Your task to perform on an android device: Open Reddit.com Image 0: 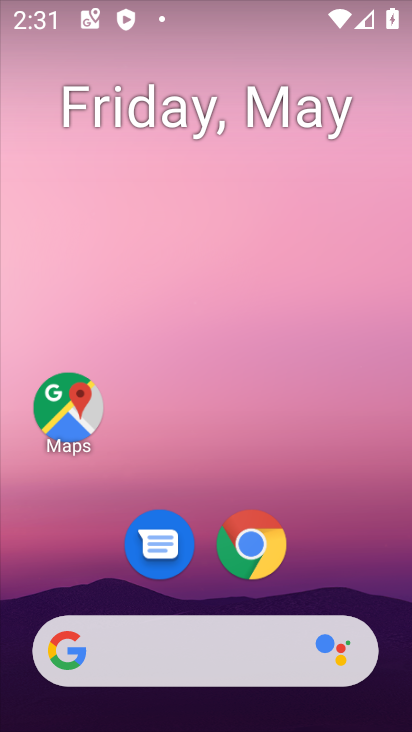
Step 0: click (261, 536)
Your task to perform on an android device: Open Reddit.com Image 1: 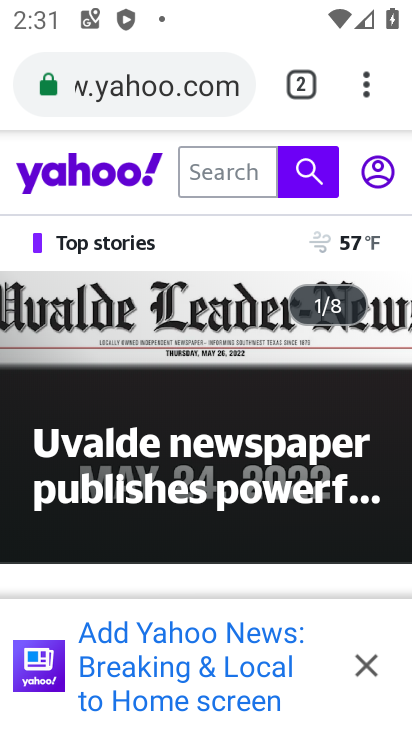
Step 1: click (300, 90)
Your task to perform on an android device: Open Reddit.com Image 2: 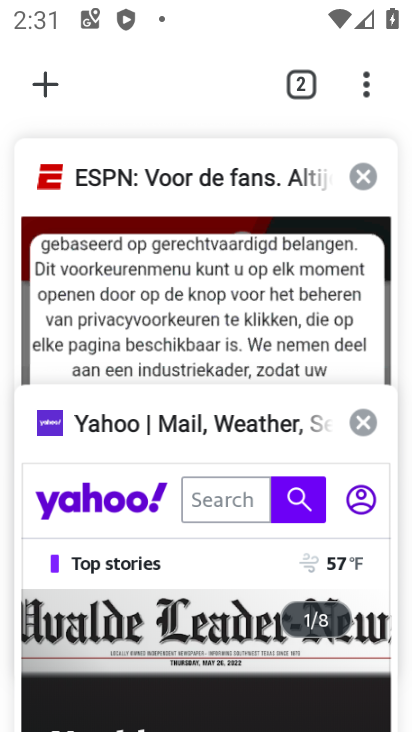
Step 2: click (48, 75)
Your task to perform on an android device: Open Reddit.com Image 3: 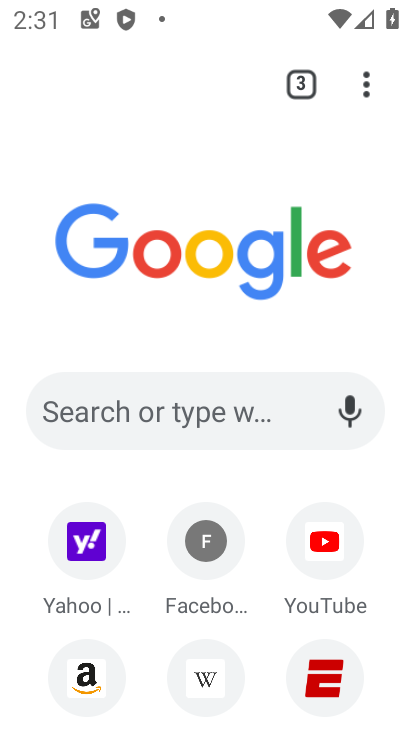
Step 3: click (186, 410)
Your task to perform on an android device: Open Reddit.com Image 4: 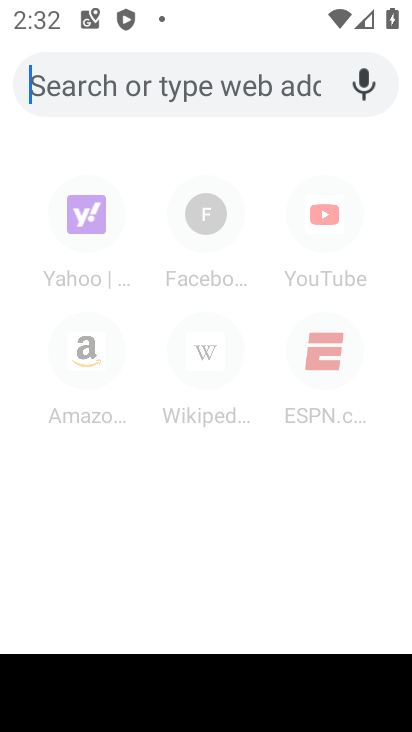
Step 4: type "Reddit.com"
Your task to perform on an android device: Open Reddit.com Image 5: 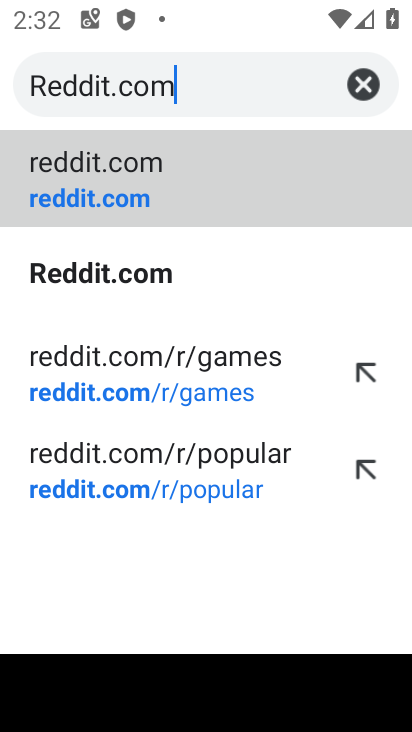
Step 5: click (319, 191)
Your task to perform on an android device: Open Reddit.com Image 6: 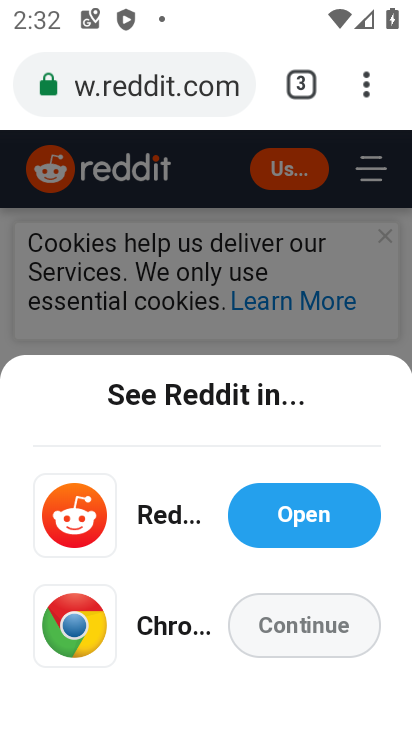
Step 6: click (307, 631)
Your task to perform on an android device: Open Reddit.com Image 7: 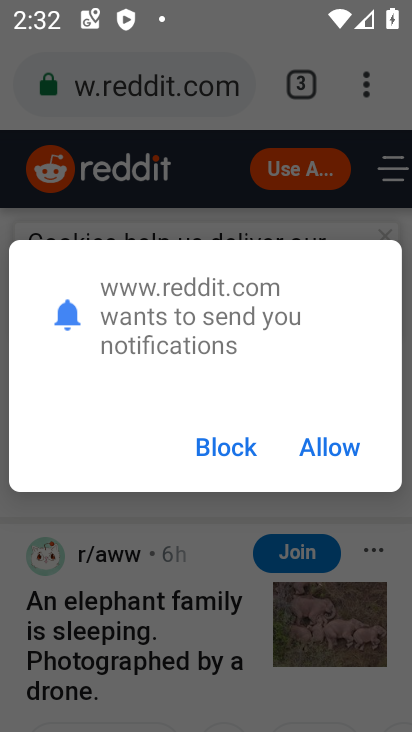
Step 7: task complete